Your task to perform on an android device: When is my next meeting? Image 0: 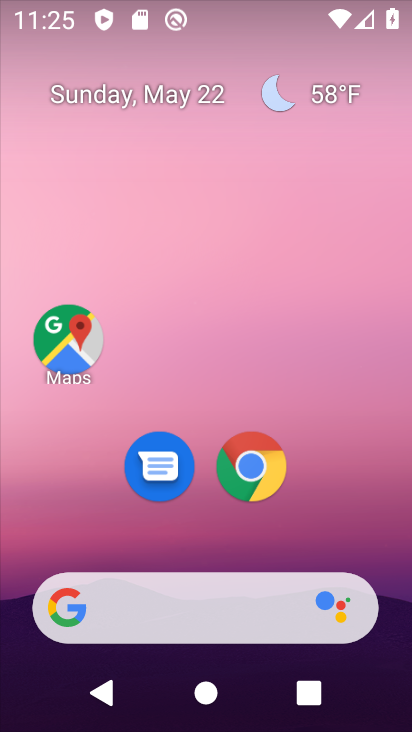
Step 0: drag from (215, 504) to (200, 59)
Your task to perform on an android device: When is my next meeting? Image 1: 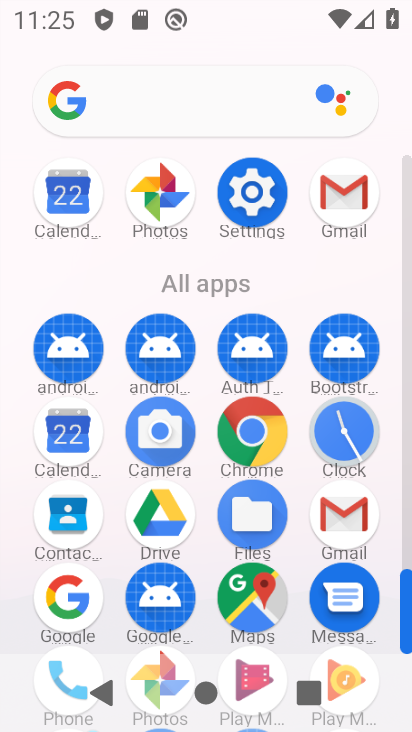
Step 1: click (55, 440)
Your task to perform on an android device: When is my next meeting? Image 2: 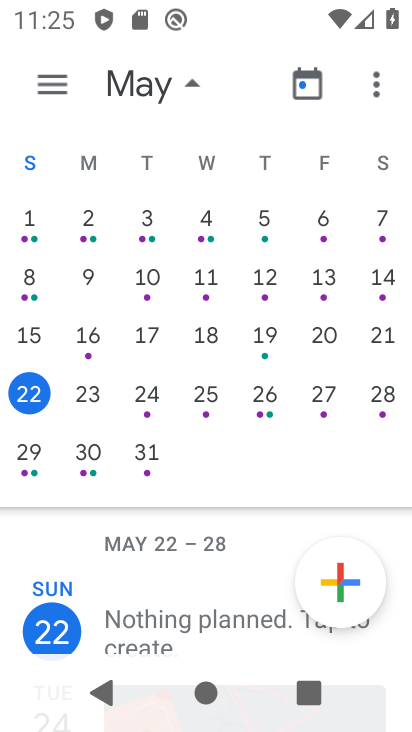
Step 2: click (207, 401)
Your task to perform on an android device: When is my next meeting? Image 3: 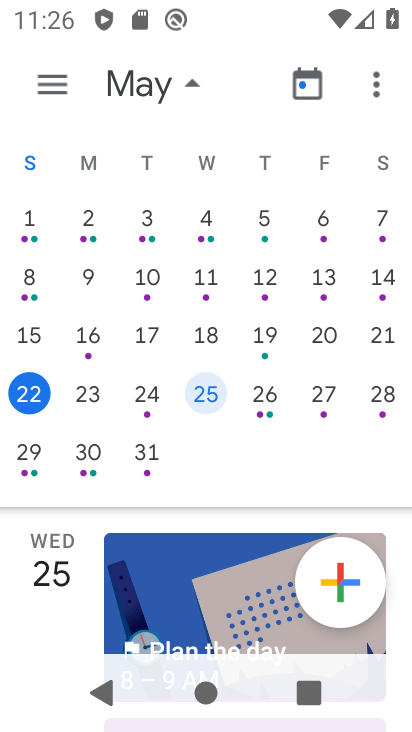
Step 3: task complete